Your task to perform on an android device: Open Yahoo.com Image 0: 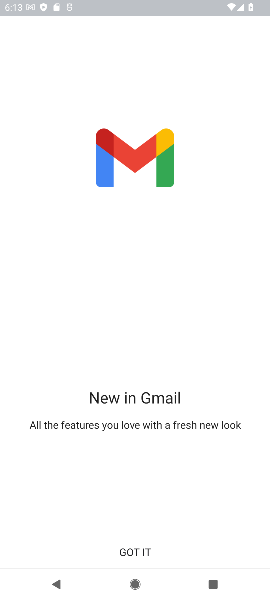
Step 0: press home button
Your task to perform on an android device: Open Yahoo.com Image 1: 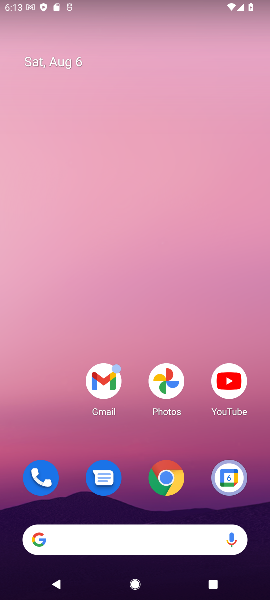
Step 1: click (165, 474)
Your task to perform on an android device: Open Yahoo.com Image 2: 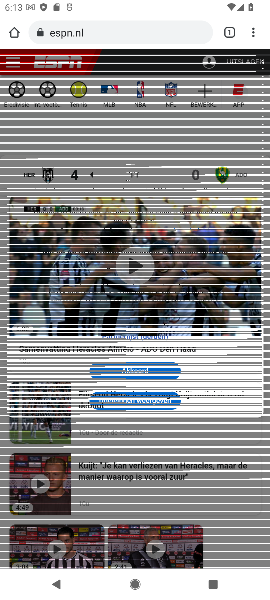
Step 2: click (93, 29)
Your task to perform on an android device: Open Yahoo.com Image 3: 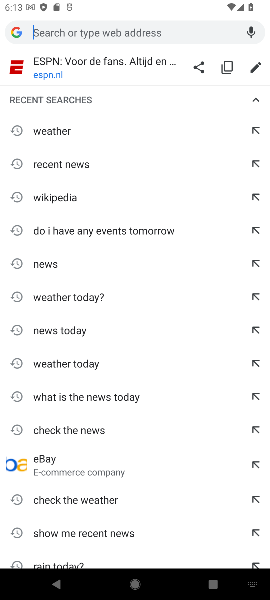
Step 3: type "Yahoo.com"
Your task to perform on an android device: Open Yahoo.com Image 4: 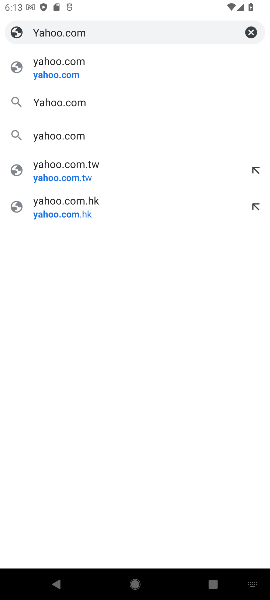
Step 4: click (64, 74)
Your task to perform on an android device: Open Yahoo.com Image 5: 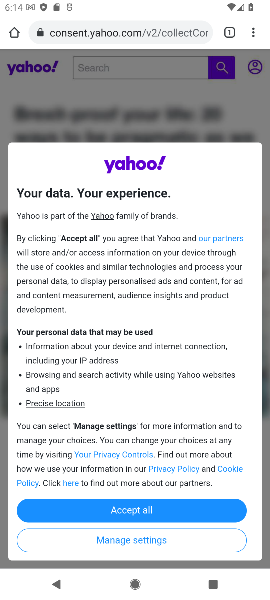
Step 5: task complete